Your task to perform on an android device: change notification settings in the gmail app Image 0: 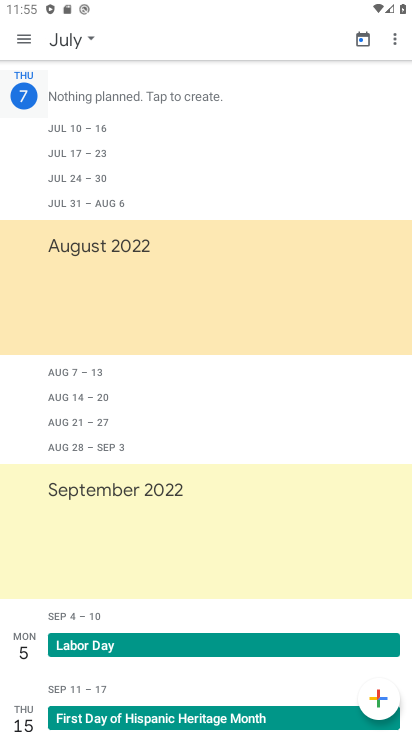
Step 0: press home button
Your task to perform on an android device: change notification settings in the gmail app Image 1: 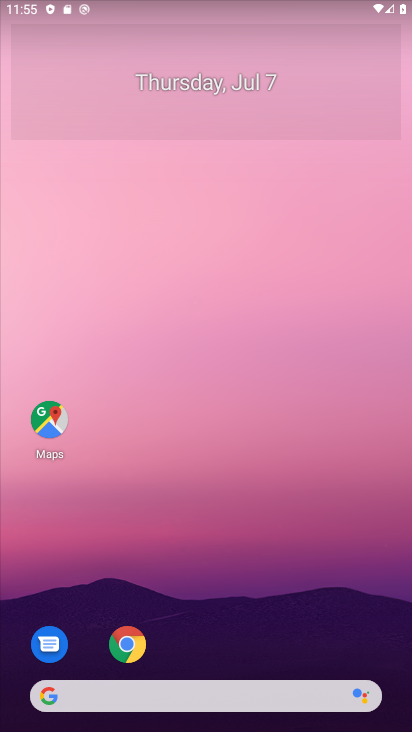
Step 1: drag from (244, 621) to (294, 93)
Your task to perform on an android device: change notification settings in the gmail app Image 2: 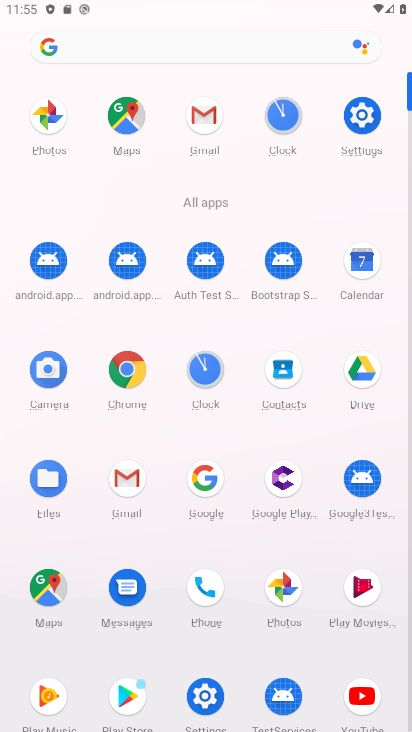
Step 2: click (119, 493)
Your task to perform on an android device: change notification settings in the gmail app Image 3: 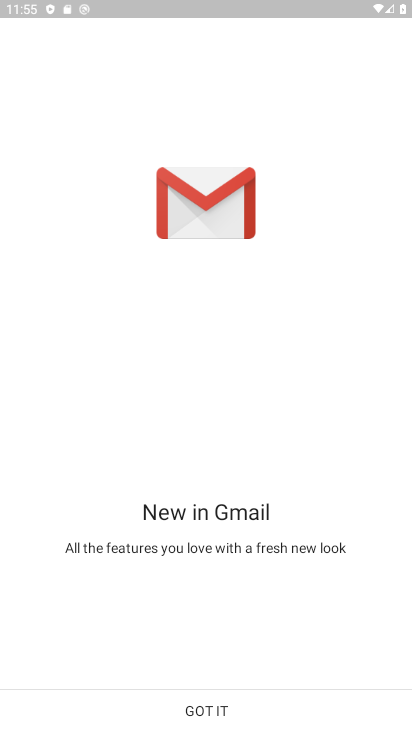
Step 3: click (218, 710)
Your task to perform on an android device: change notification settings in the gmail app Image 4: 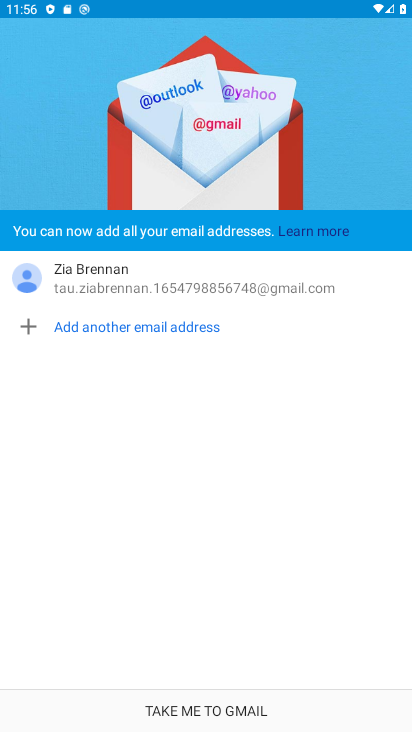
Step 4: click (202, 711)
Your task to perform on an android device: change notification settings in the gmail app Image 5: 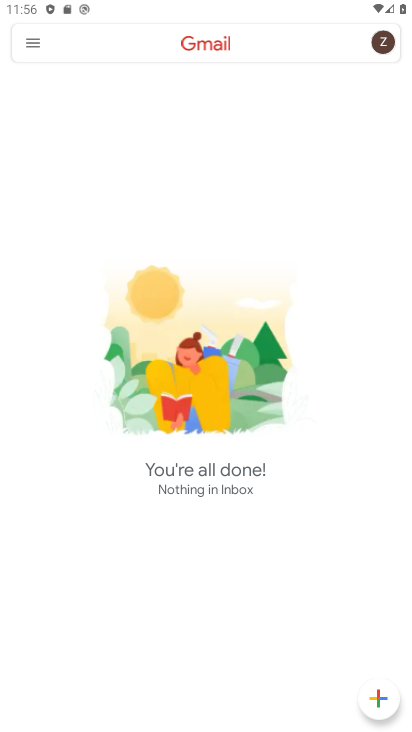
Step 5: click (41, 36)
Your task to perform on an android device: change notification settings in the gmail app Image 6: 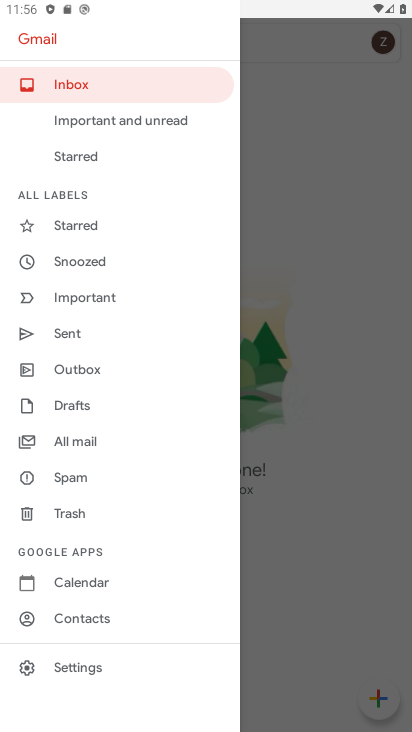
Step 6: click (82, 671)
Your task to perform on an android device: change notification settings in the gmail app Image 7: 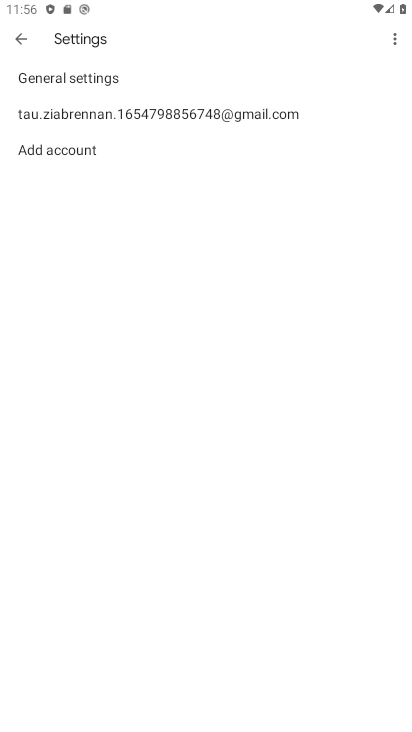
Step 7: click (88, 80)
Your task to perform on an android device: change notification settings in the gmail app Image 8: 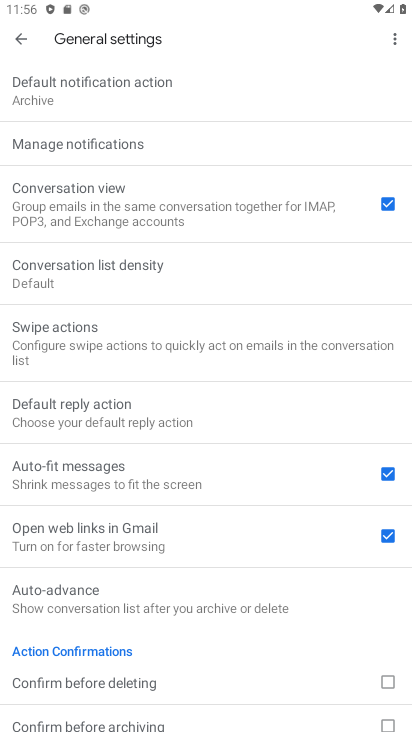
Step 8: click (144, 149)
Your task to perform on an android device: change notification settings in the gmail app Image 9: 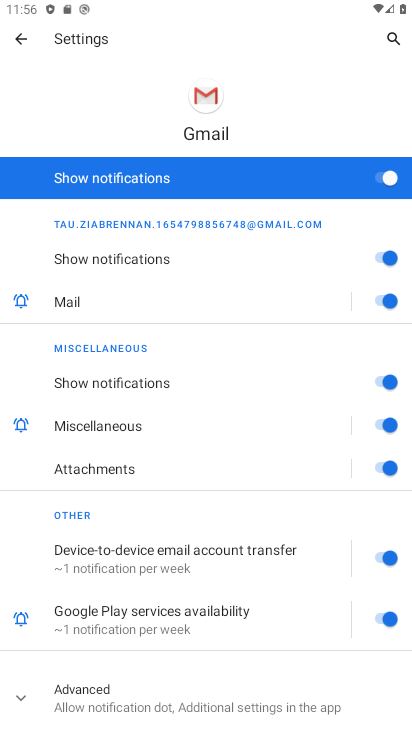
Step 9: click (364, 170)
Your task to perform on an android device: change notification settings in the gmail app Image 10: 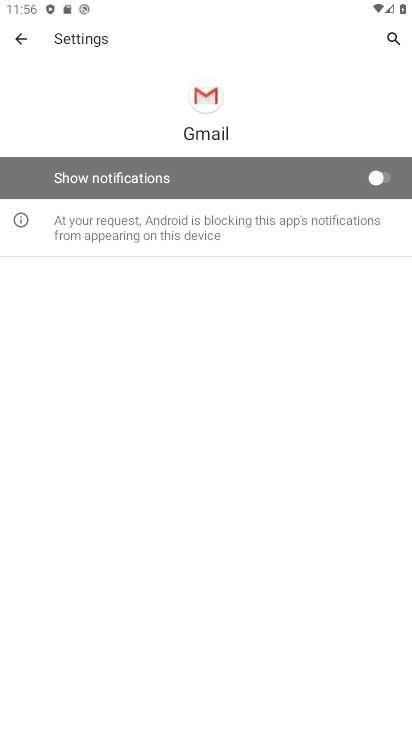
Step 10: task complete